Your task to perform on an android device: refresh tabs in the chrome app Image 0: 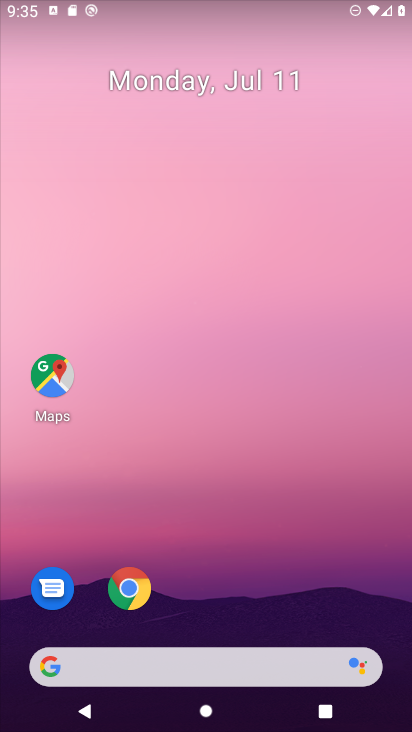
Step 0: drag from (404, 640) to (251, 50)
Your task to perform on an android device: refresh tabs in the chrome app Image 1: 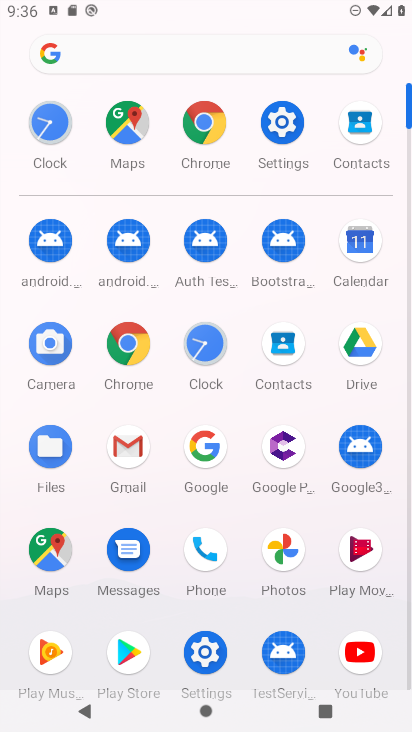
Step 1: click (123, 348)
Your task to perform on an android device: refresh tabs in the chrome app Image 2: 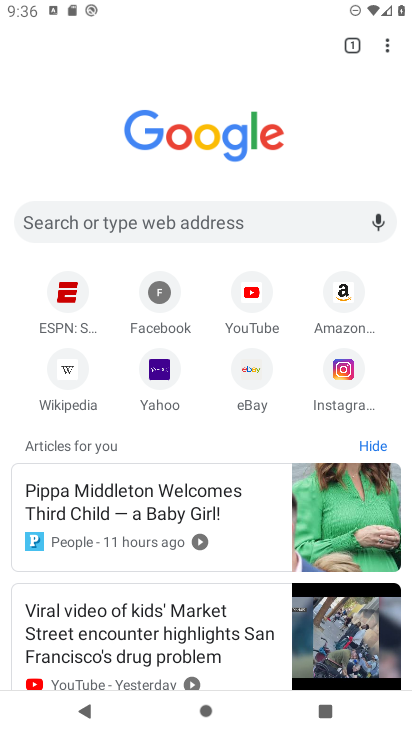
Step 2: click (385, 38)
Your task to perform on an android device: refresh tabs in the chrome app Image 3: 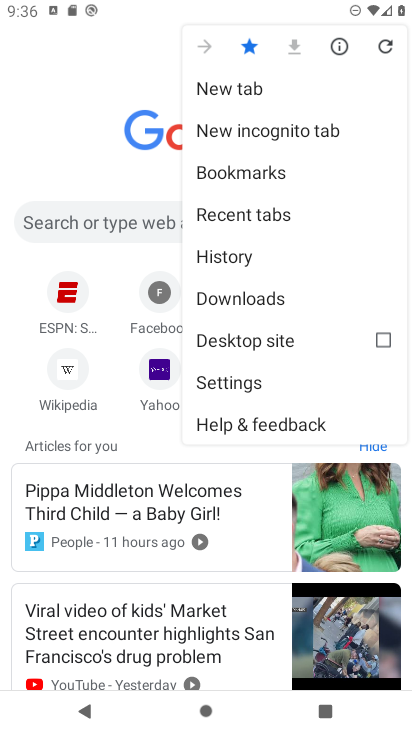
Step 3: click (384, 43)
Your task to perform on an android device: refresh tabs in the chrome app Image 4: 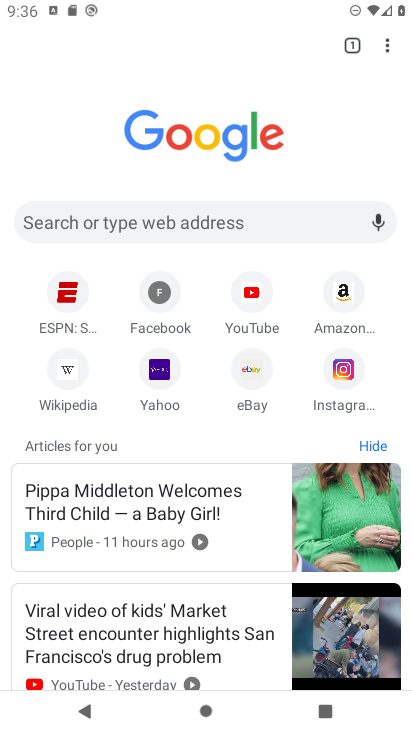
Step 4: task complete